Your task to perform on an android device: change your default location settings in chrome Image 0: 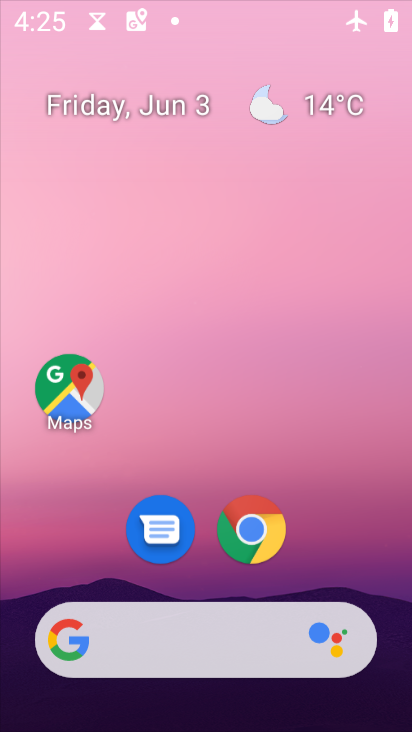
Step 0: drag from (354, 414) to (325, 81)
Your task to perform on an android device: change your default location settings in chrome Image 1: 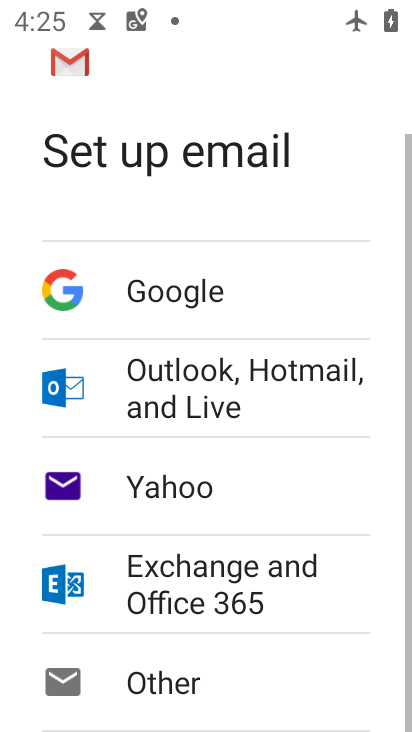
Step 1: press home button
Your task to perform on an android device: change your default location settings in chrome Image 2: 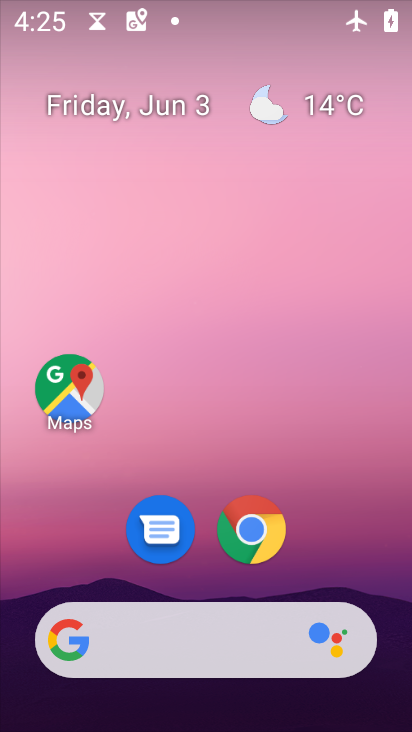
Step 2: drag from (405, 336) to (350, 545)
Your task to perform on an android device: change your default location settings in chrome Image 3: 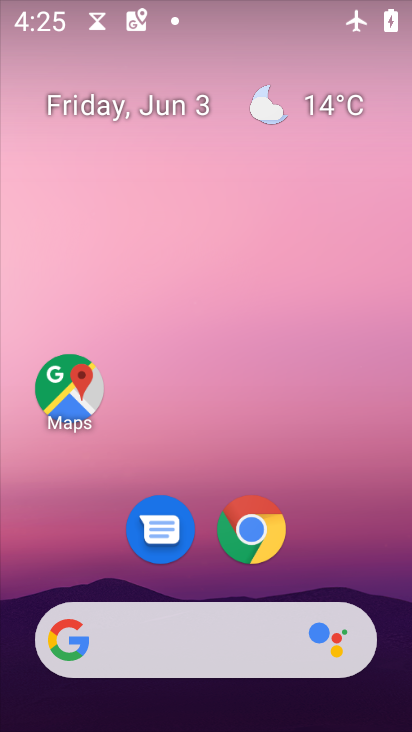
Step 3: drag from (338, 501) to (253, 19)
Your task to perform on an android device: change your default location settings in chrome Image 4: 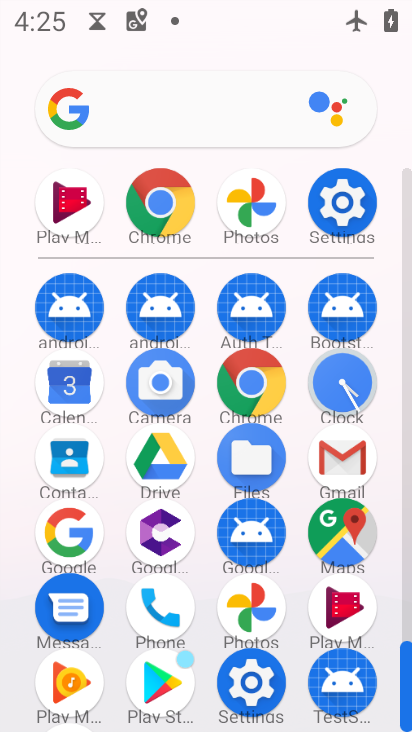
Step 4: click (160, 206)
Your task to perform on an android device: change your default location settings in chrome Image 5: 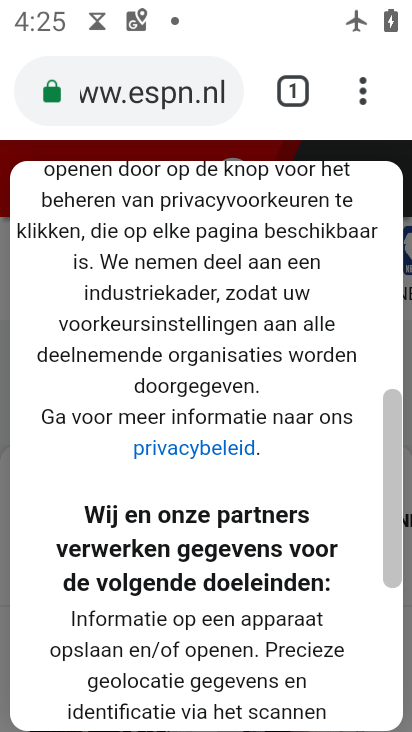
Step 5: drag from (369, 76) to (66, 565)
Your task to perform on an android device: change your default location settings in chrome Image 6: 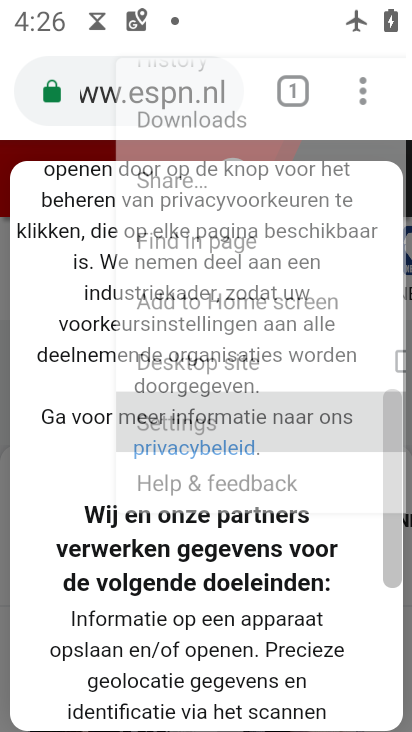
Step 6: click (169, 563)
Your task to perform on an android device: change your default location settings in chrome Image 7: 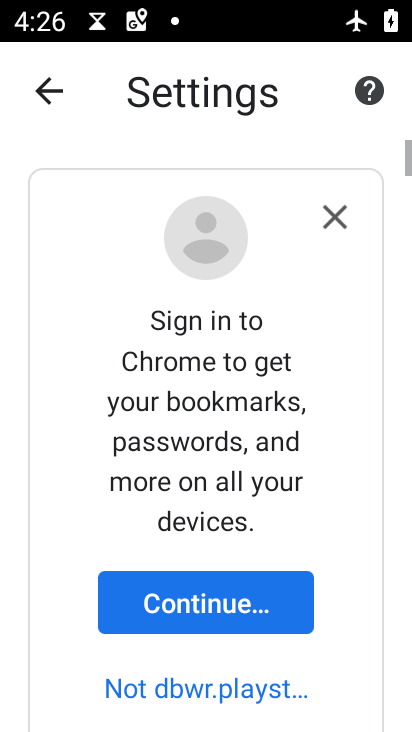
Step 7: drag from (174, 605) to (170, 214)
Your task to perform on an android device: change your default location settings in chrome Image 8: 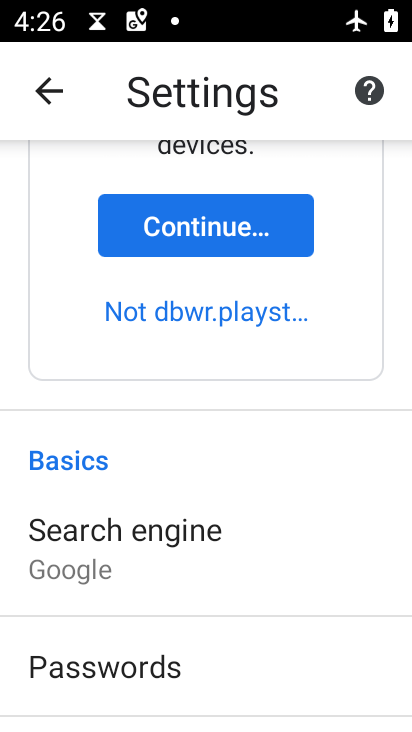
Step 8: drag from (143, 547) to (182, 172)
Your task to perform on an android device: change your default location settings in chrome Image 9: 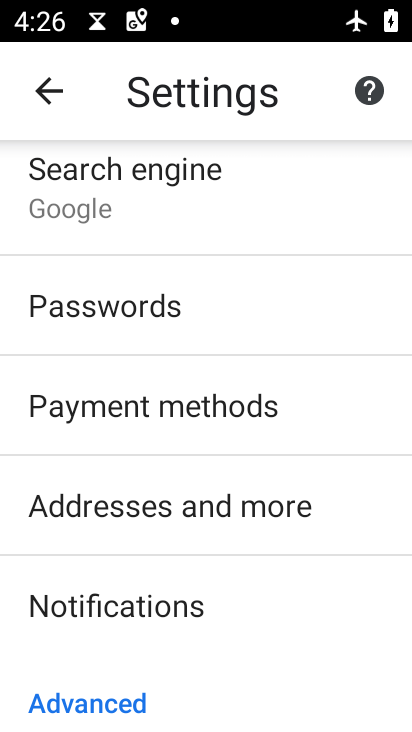
Step 9: drag from (152, 623) to (217, 205)
Your task to perform on an android device: change your default location settings in chrome Image 10: 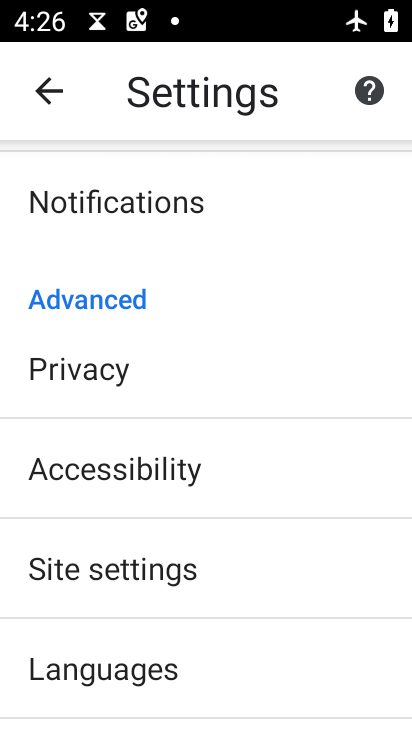
Step 10: drag from (123, 567) to (163, 137)
Your task to perform on an android device: change your default location settings in chrome Image 11: 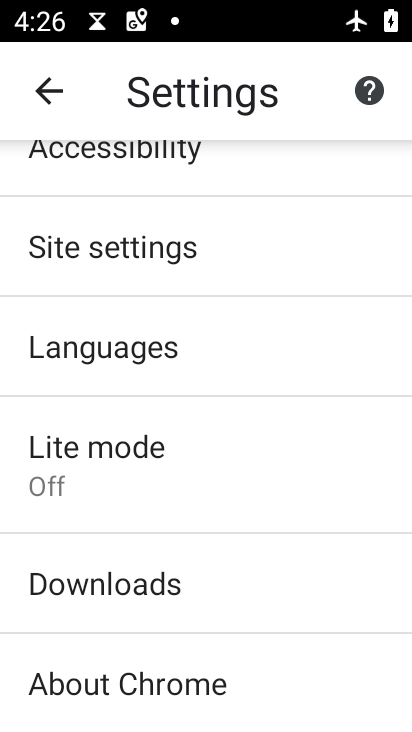
Step 11: drag from (179, 190) to (147, 682)
Your task to perform on an android device: change your default location settings in chrome Image 12: 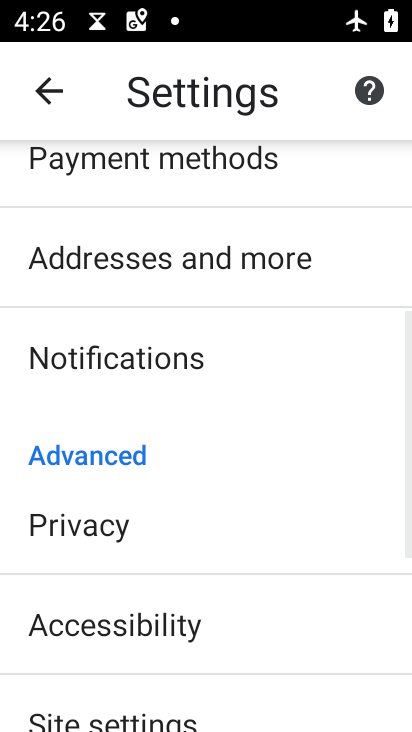
Step 12: drag from (238, 244) to (176, 696)
Your task to perform on an android device: change your default location settings in chrome Image 13: 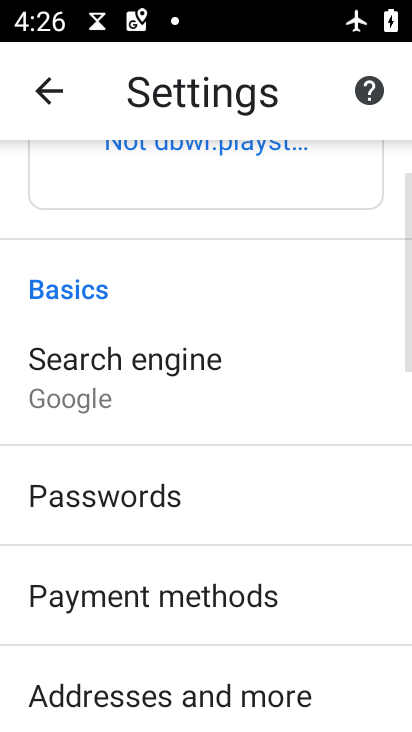
Step 13: drag from (210, 260) to (154, 686)
Your task to perform on an android device: change your default location settings in chrome Image 14: 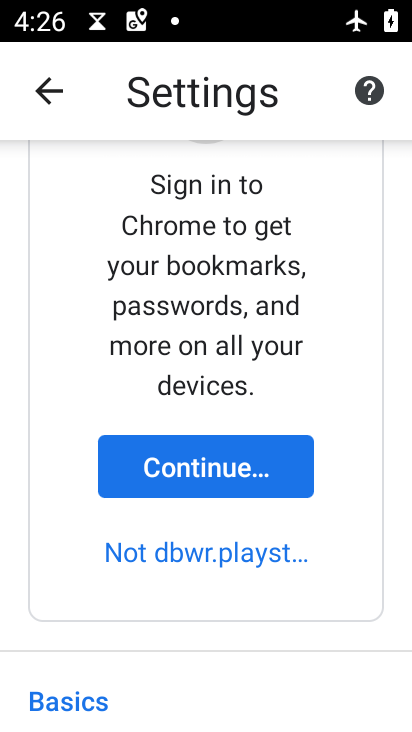
Step 14: drag from (143, 631) to (213, 210)
Your task to perform on an android device: change your default location settings in chrome Image 15: 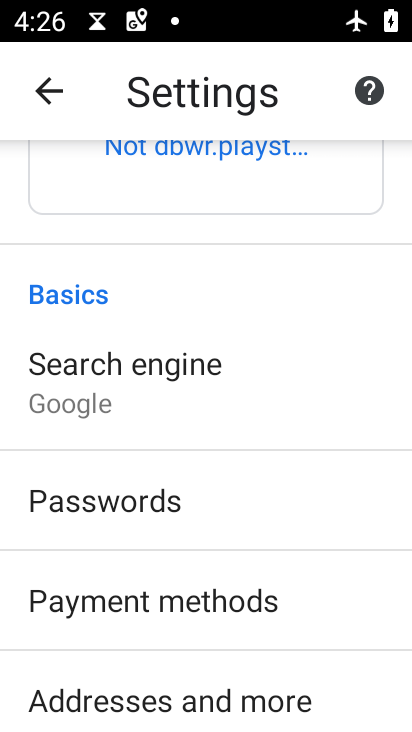
Step 15: drag from (165, 640) to (266, 204)
Your task to perform on an android device: change your default location settings in chrome Image 16: 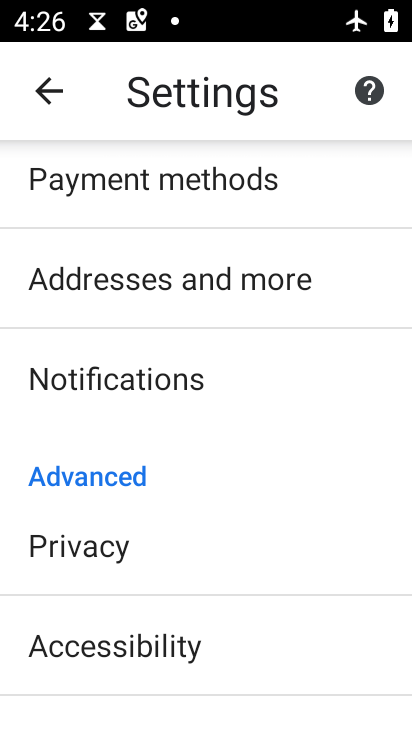
Step 16: drag from (219, 628) to (339, 217)
Your task to perform on an android device: change your default location settings in chrome Image 17: 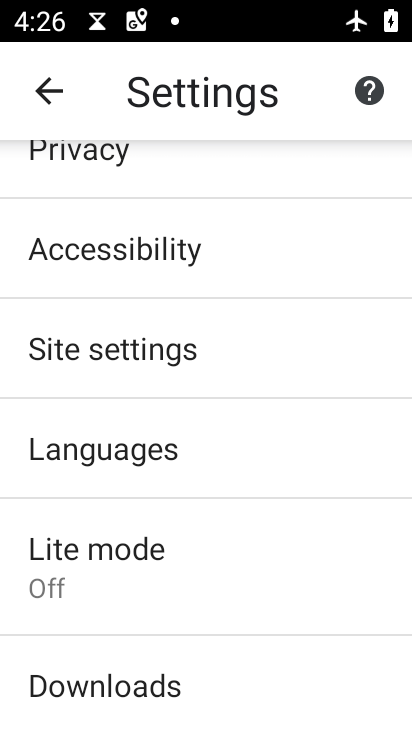
Step 17: click (227, 455)
Your task to perform on an android device: change your default location settings in chrome Image 18: 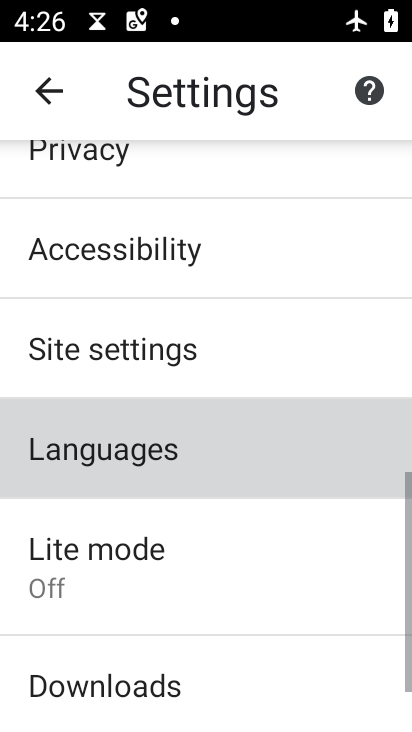
Step 18: press back button
Your task to perform on an android device: change your default location settings in chrome Image 19: 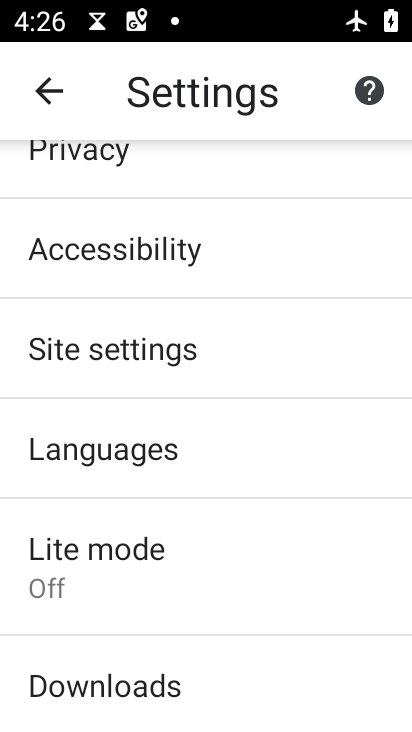
Step 19: click (163, 369)
Your task to perform on an android device: change your default location settings in chrome Image 20: 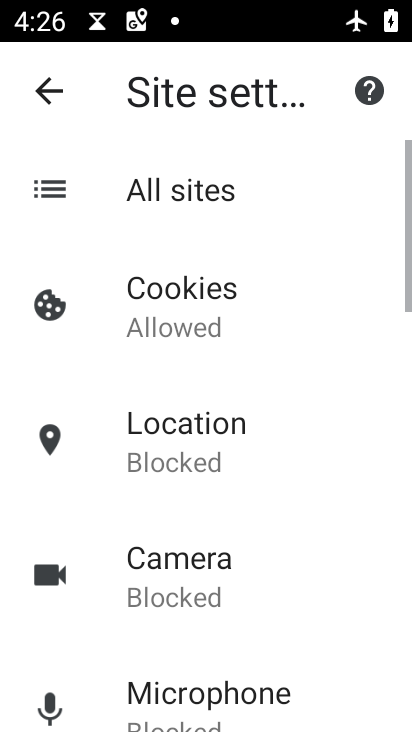
Step 20: click (194, 450)
Your task to perform on an android device: change your default location settings in chrome Image 21: 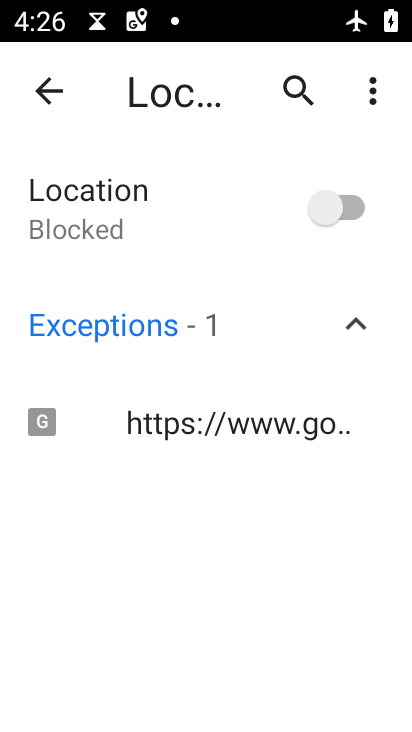
Step 21: click (341, 187)
Your task to perform on an android device: change your default location settings in chrome Image 22: 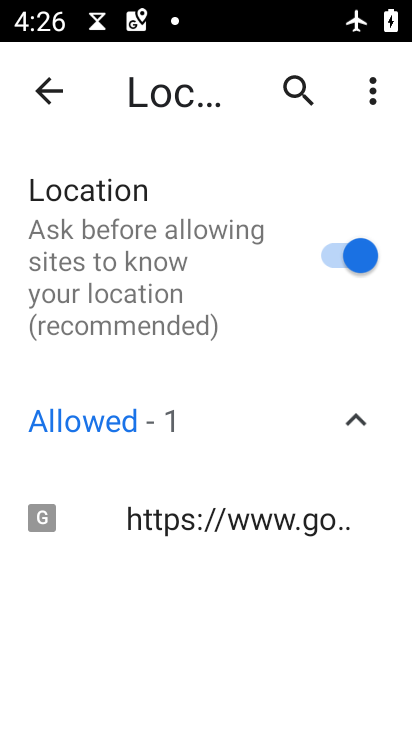
Step 22: task complete